Your task to perform on an android device: Go to Google maps Image 0: 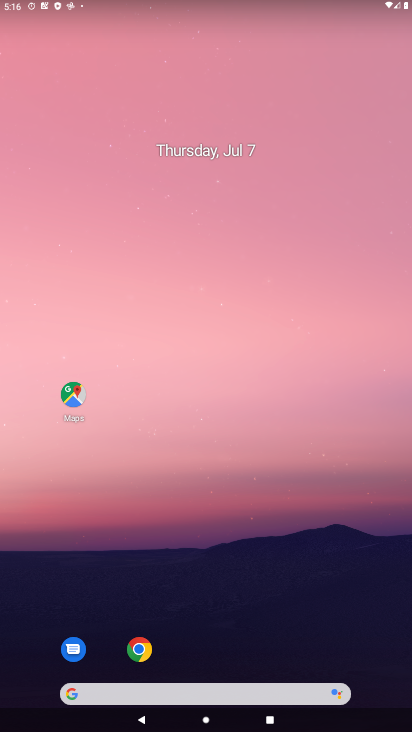
Step 0: drag from (363, 622) to (173, 5)
Your task to perform on an android device: Go to Google maps Image 1: 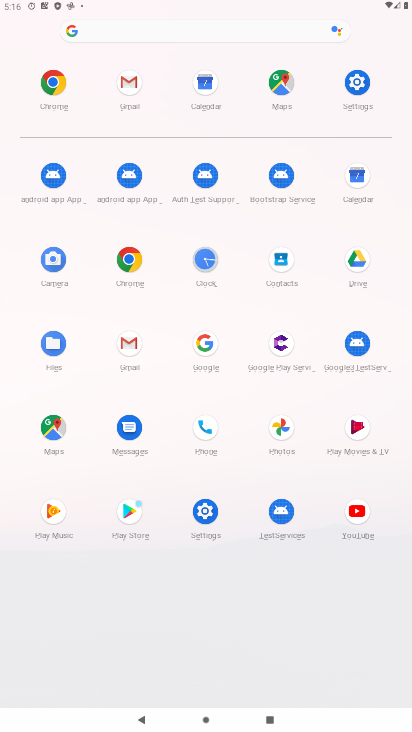
Step 1: click (54, 421)
Your task to perform on an android device: Go to Google maps Image 2: 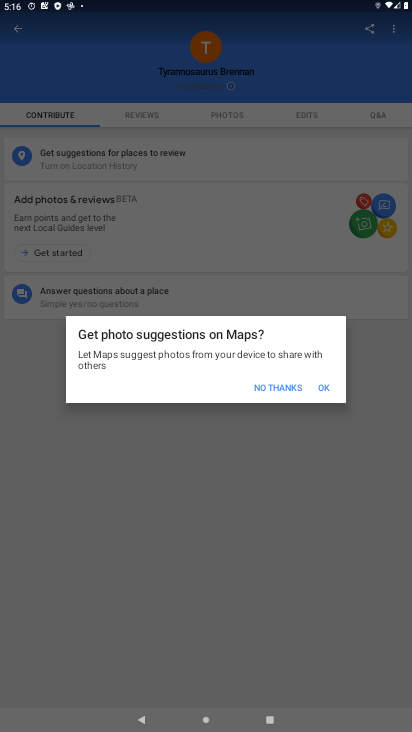
Step 2: task complete